Your task to perform on an android device: What's the weather? Image 0: 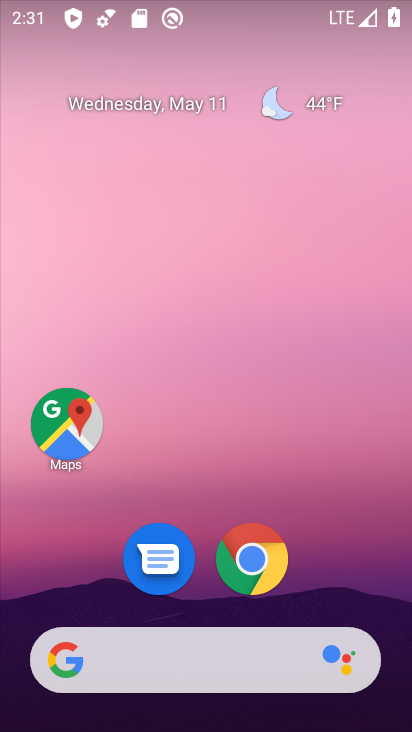
Step 0: click (317, 105)
Your task to perform on an android device: What's the weather? Image 1: 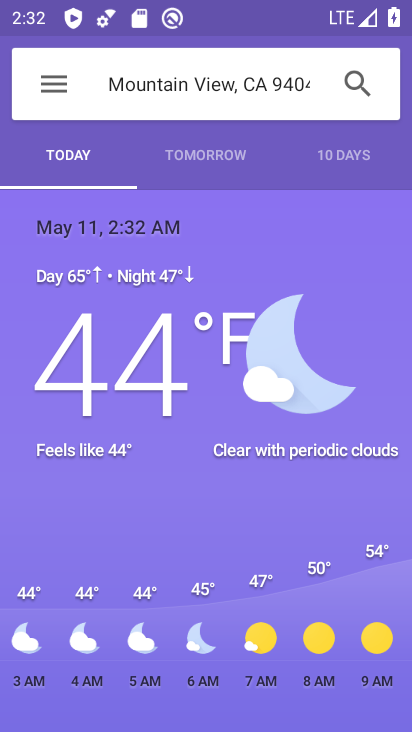
Step 1: task complete